Your task to perform on an android device: turn off javascript in the chrome app Image 0: 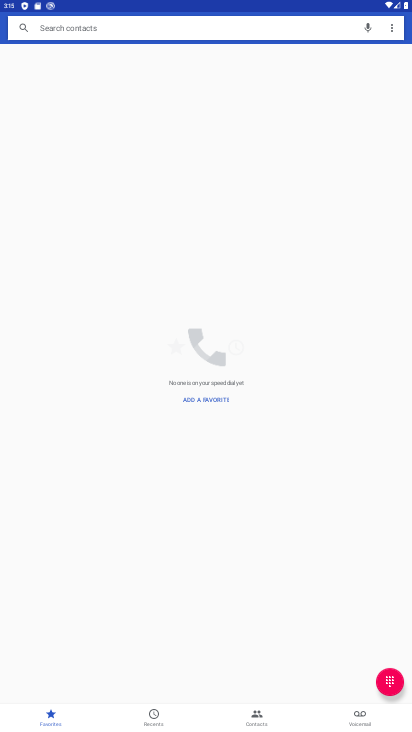
Step 0: press home button
Your task to perform on an android device: turn off javascript in the chrome app Image 1: 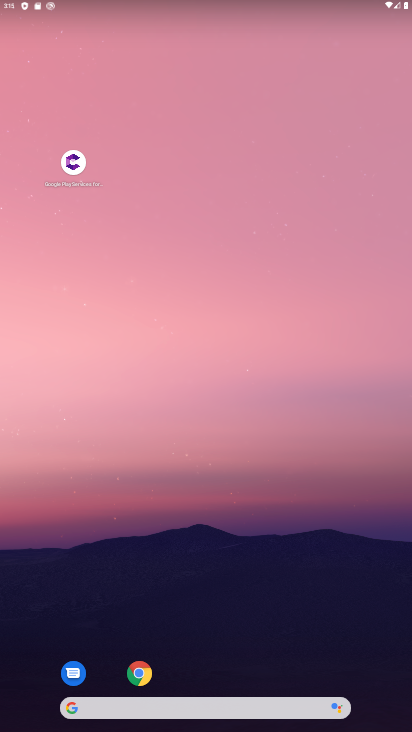
Step 1: click (138, 673)
Your task to perform on an android device: turn off javascript in the chrome app Image 2: 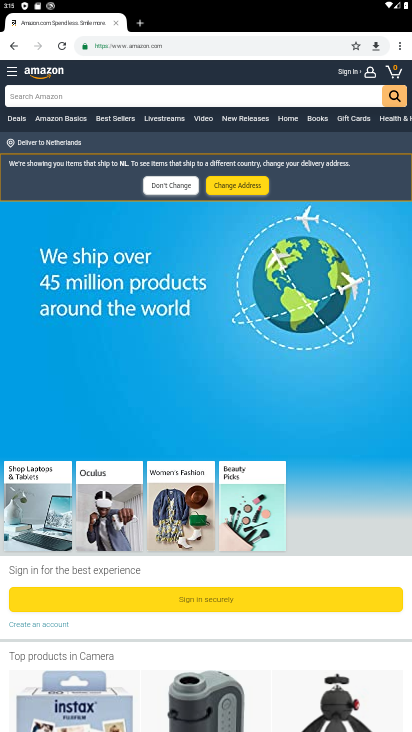
Step 2: click (400, 49)
Your task to perform on an android device: turn off javascript in the chrome app Image 3: 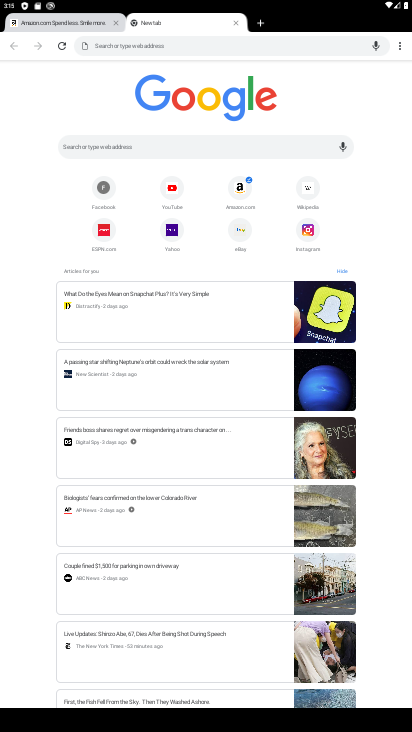
Step 3: drag from (401, 49) to (303, 211)
Your task to perform on an android device: turn off javascript in the chrome app Image 4: 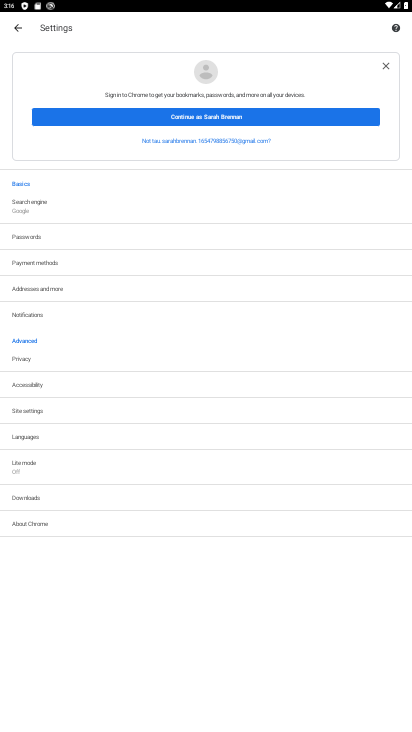
Step 4: click (38, 415)
Your task to perform on an android device: turn off javascript in the chrome app Image 5: 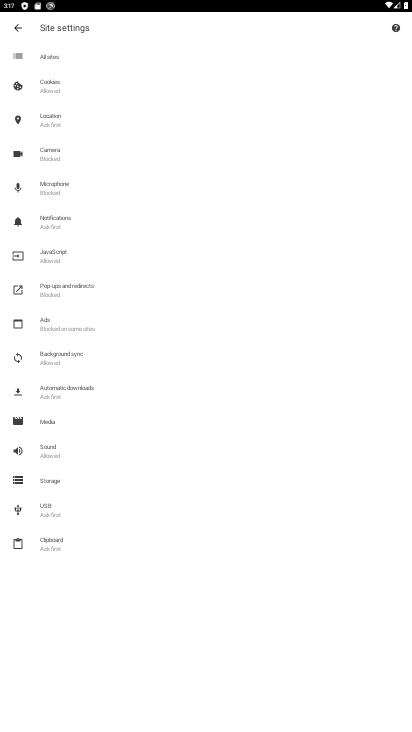
Step 5: click (58, 263)
Your task to perform on an android device: turn off javascript in the chrome app Image 6: 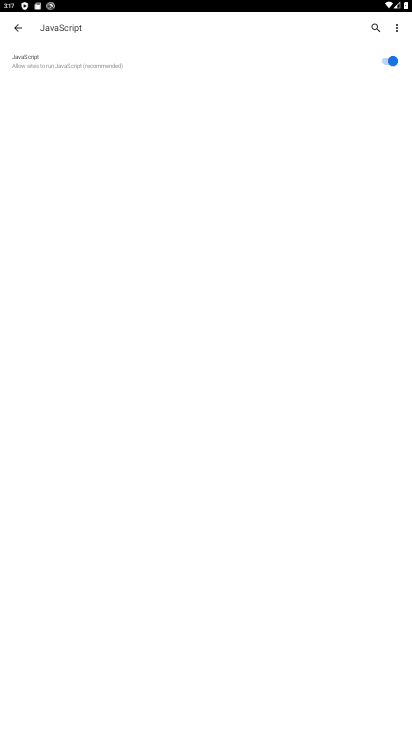
Step 6: click (390, 65)
Your task to perform on an android device: turn off javascript in the chrome app Image 7: 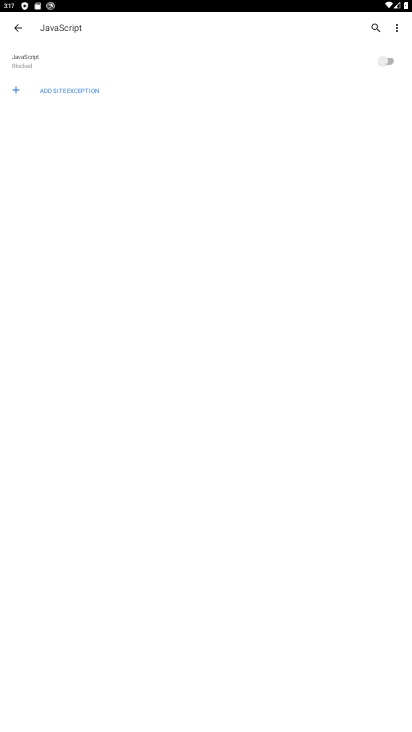
Step 7: task complete